Your task to perform on an android device: snooze an email in the gmail app Image 0: 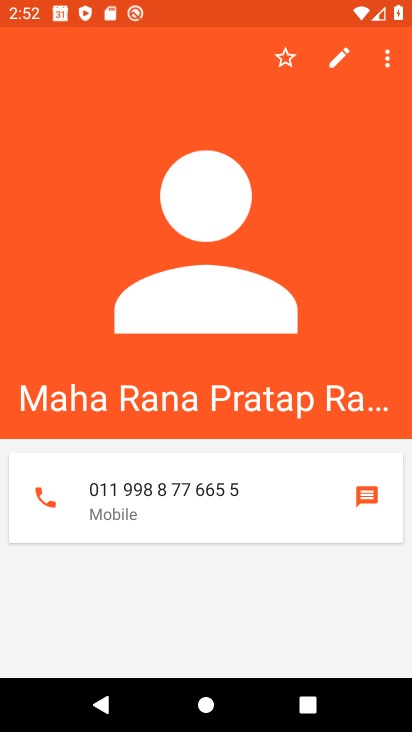
Step 0: press home button
Your task to perform on an android device: snooze an email in the gmail app Image 1: 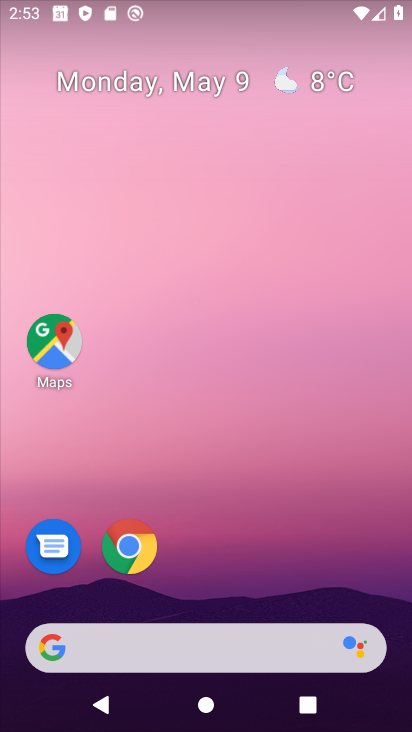
Step 1: drag from (219, 545) to (221, 41)
Your task to perform on an android device: snooze an email in the gmail app Image 2: 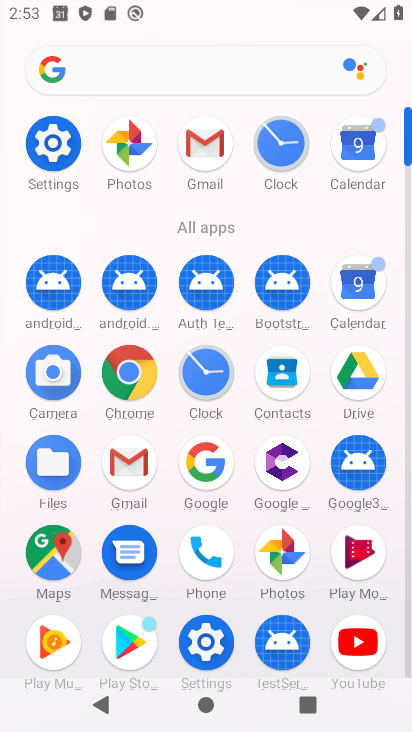
Step 2: click (197, 145)
Your task to perform on an android device: snooze an email in the gmail app Image 3: 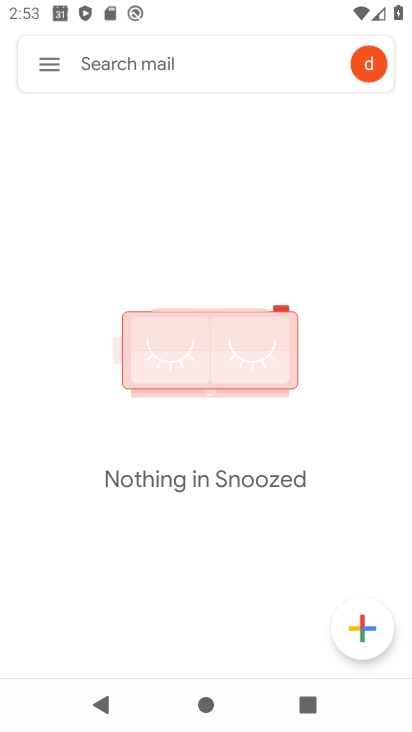
Step 3: click (53, 62)
Your task to perform on an android device: snooze an email in the gmail app Image 4: 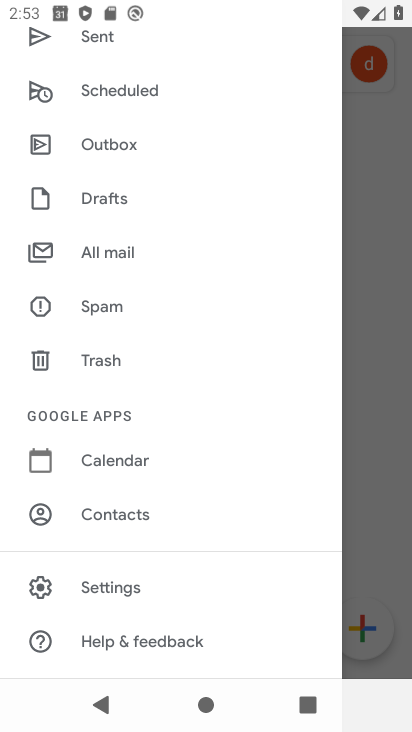
Step 4: click (107, 240)
Your task to perform on an android device: snooze an email in the gmail app Image 5: 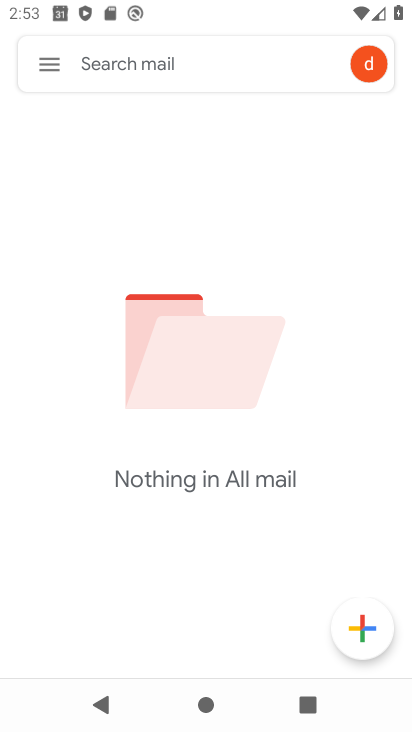
Step 5: task complete